Your task to perform on an android device: turn smart compose on in the gmail app Image 0: 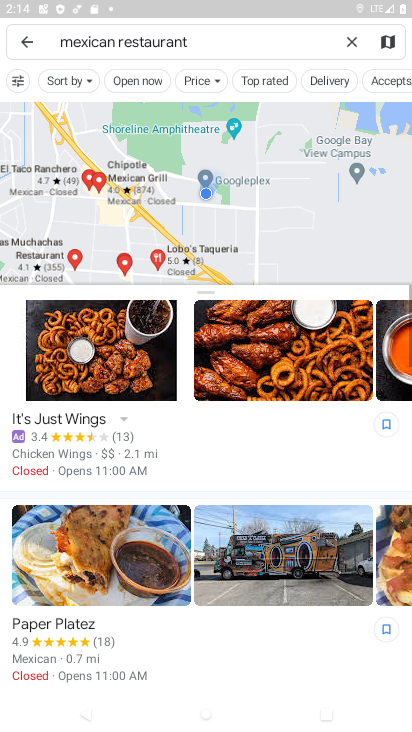
Step 0: press home button
Your task to perform on an android device: turn smart compose on in the gmail app Image 1: 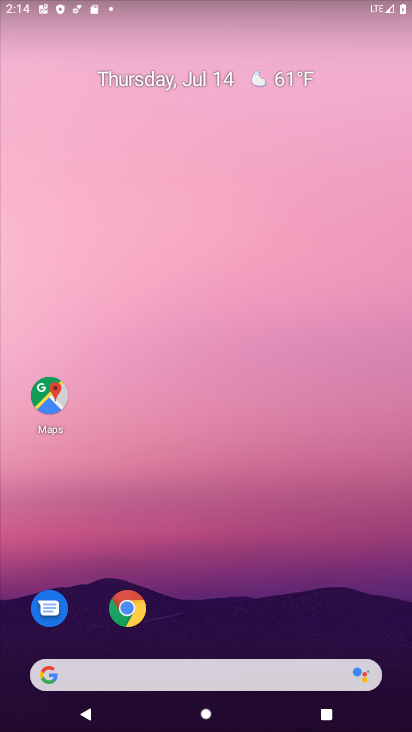
Step 1: drag from (195, 655) to (225, 308)
Your task to perform on an android device: turn smart compose on in the gmail app Image 2: 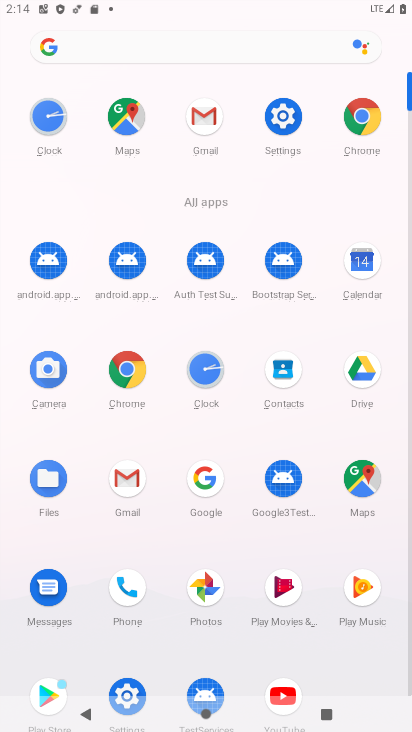
Step 2: click (127, 478)
Your task to perform on an android device: turn smart compose on in the gmail app Image 3: 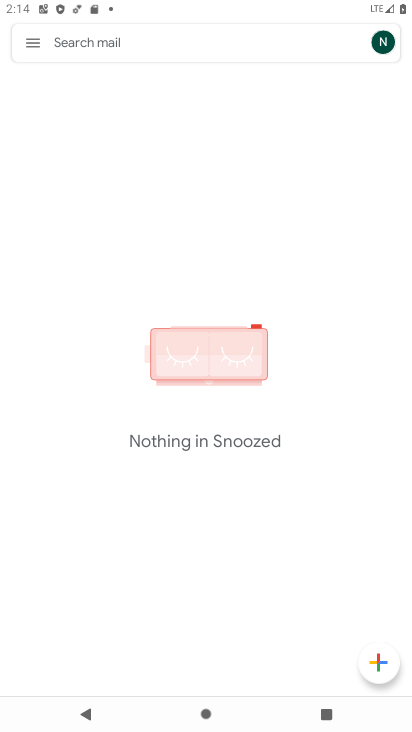
Step 3: click (30, 48)
Your task to perform on an android device: turn smart compose on in the gmail app Image 4: 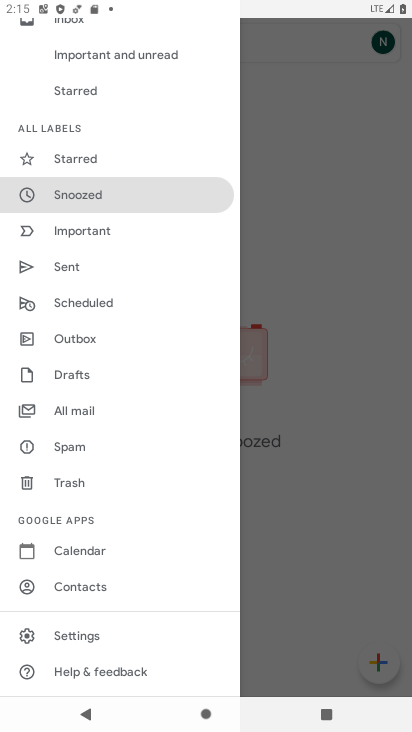
Step 4: click (86, 629)
Your task to perform on an android device: turn smart compose on in the gmail app Image 5: 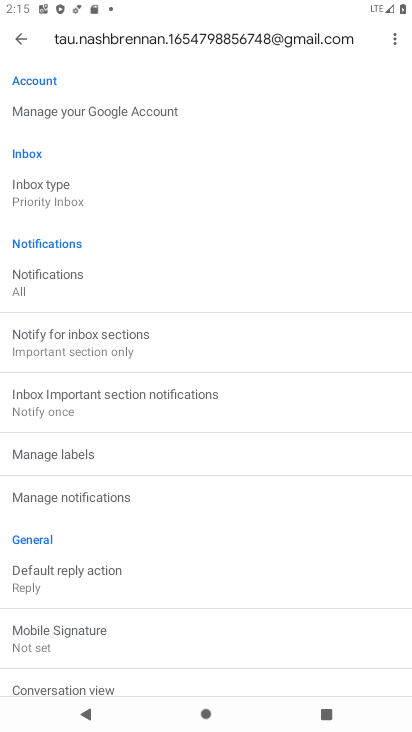
Step 5: task complete